Your task to perform on an android device: change alarm snooze length Image 0: 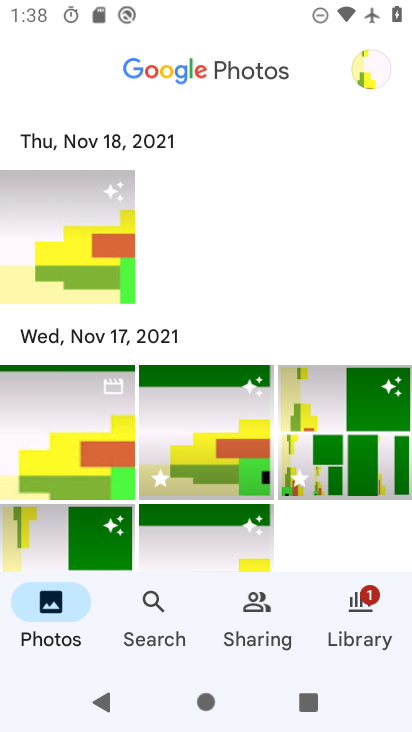
Step 0: press home button
Your task to perform on an android device: change alarm snooze length Image 1: 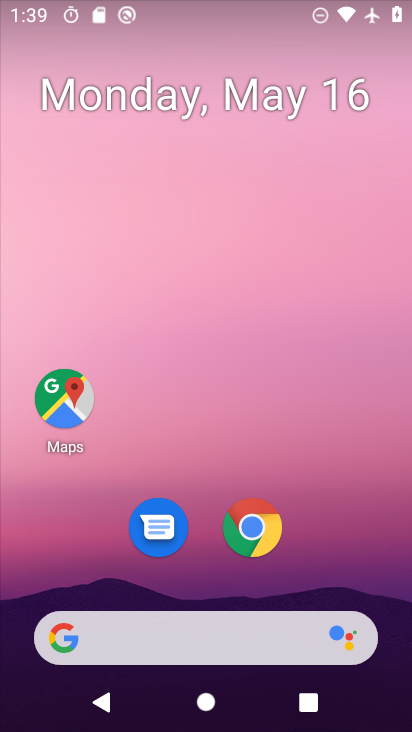
Step 1: drag from (207, 642) to (324, 137)
Your task to perform on an android device: change alarm snooze length Image 2: 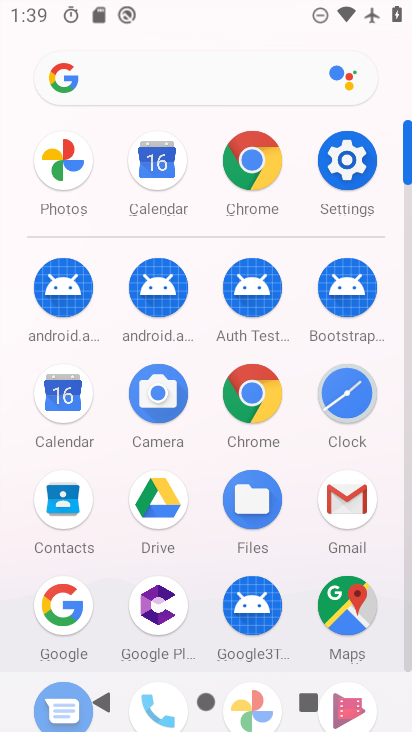
Step 2: click (335, 402)
Your task to perform on an android device: change alarm snooze length Image 3: 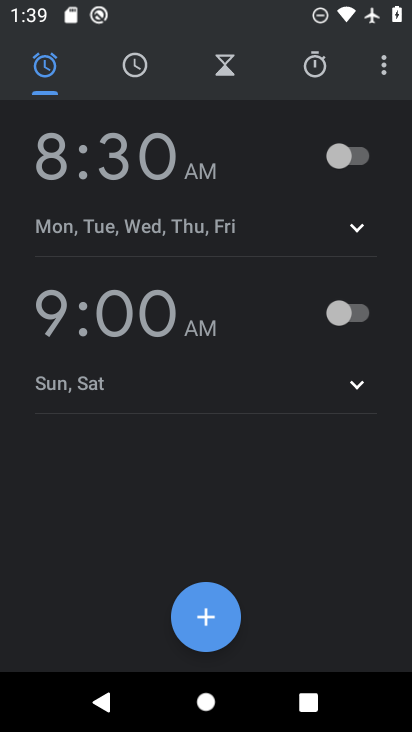
Step 3: click (377, 57)
Your task to perform on an android device: change alarm snooze length Image 4: 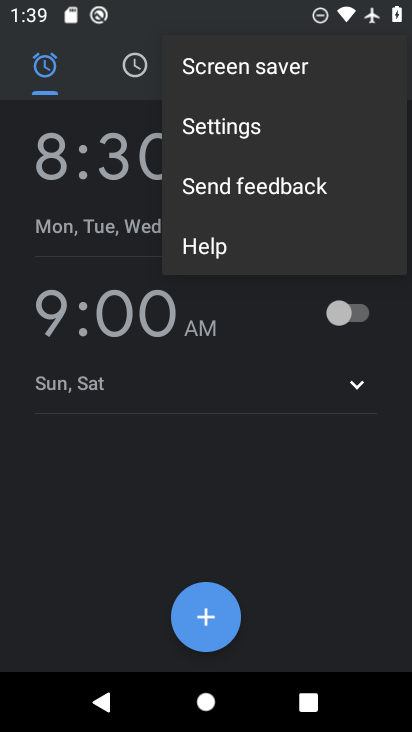
Step 4: click (225, 132)
Your task to perform on an android device: change alarm snooze length Image 5: 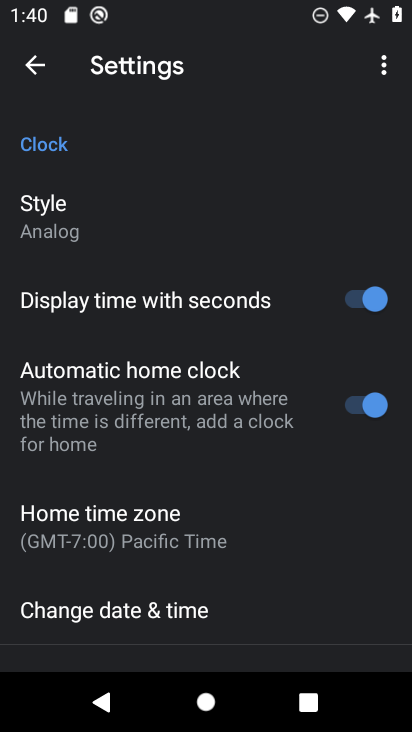
Step 5: drag from (190, 533) to (324, 184)
Your task to perform on an android device: change alarm snooze length Image 6: 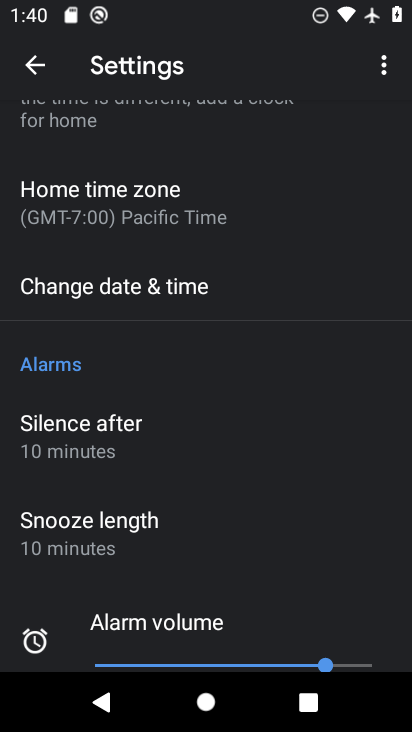
Step 6: click (117, 531)
Your task to perform on an android device: change alarm snooze length Image 7: 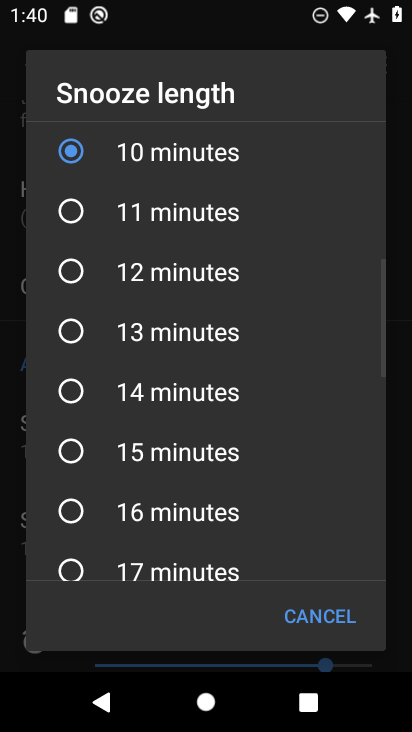
Step 7: click (75, 452)
Your task to perform on an android device: change alarm snooze length Image 8: 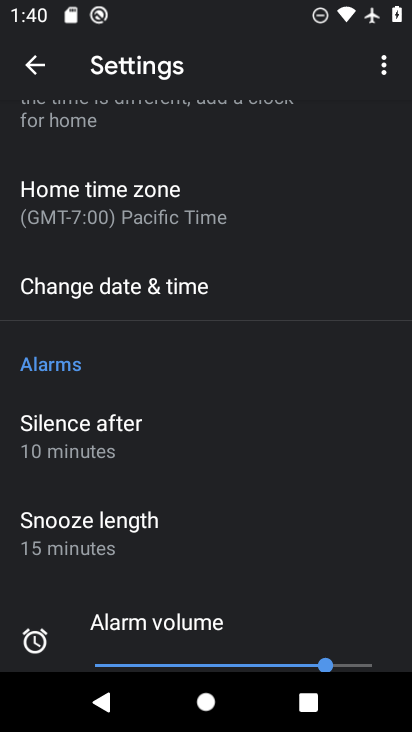
Step 8: task complete